Your task to perform on an android device: Search for the new Nike Air Jordan 33 on Nike.com Image 0: 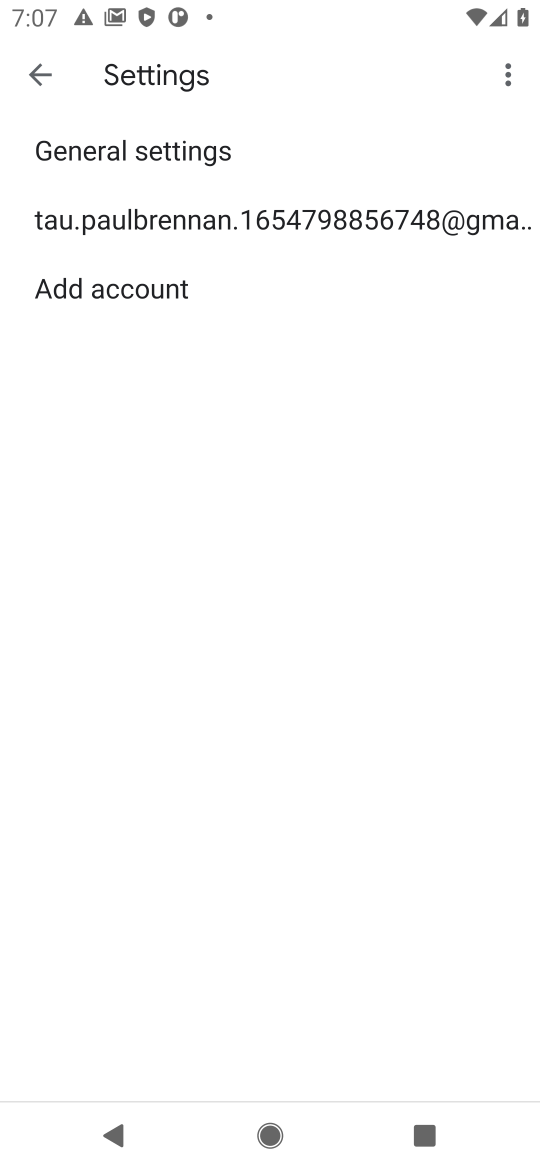
Step 0: press home button
Your task to perform on an android device: Search for the new Nike Air Jordan 33 on Nike.com Image 1: 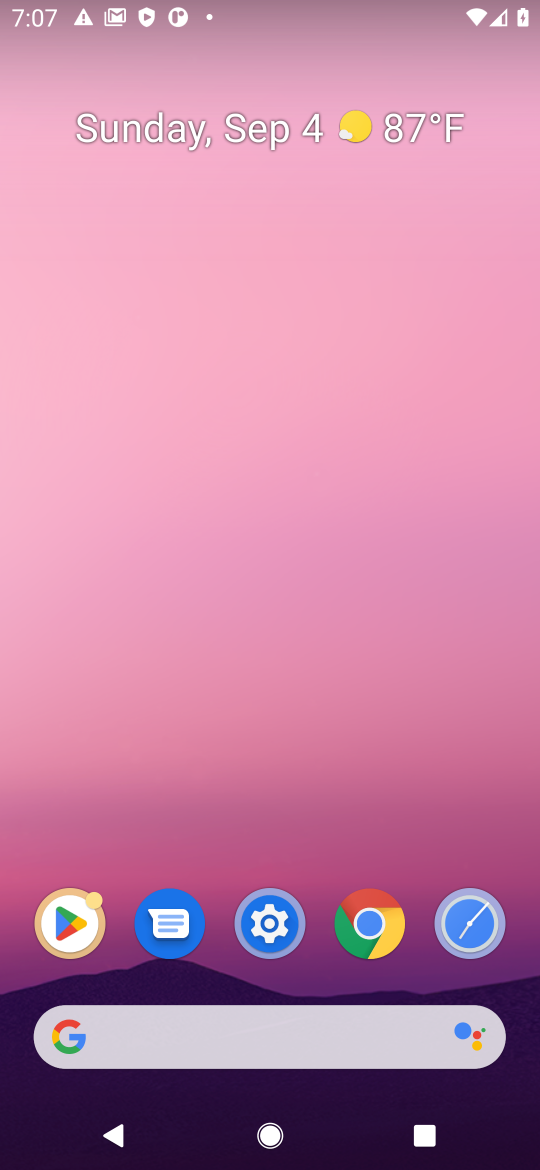
Step 1: click (332, 1051)
Your task to perform on an android device: Search for the new Nike Air Jordan 33 on Nike.com Image 2: 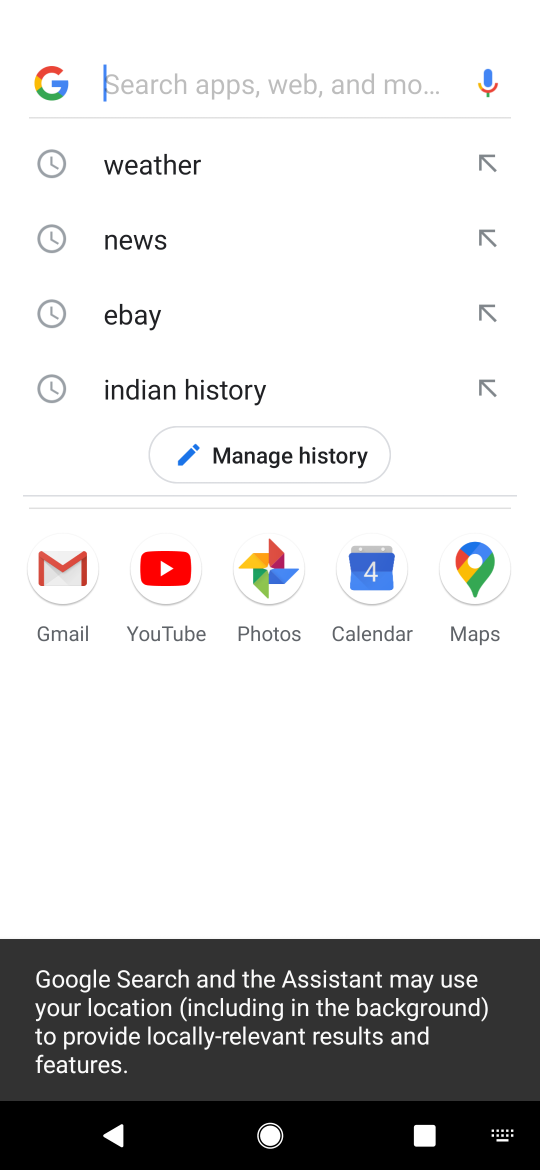
Step 2: click (284, 1027)
Your task to perform on an android device: Search for the new Nike Air Jordan 33 on Nike.com Image 3: 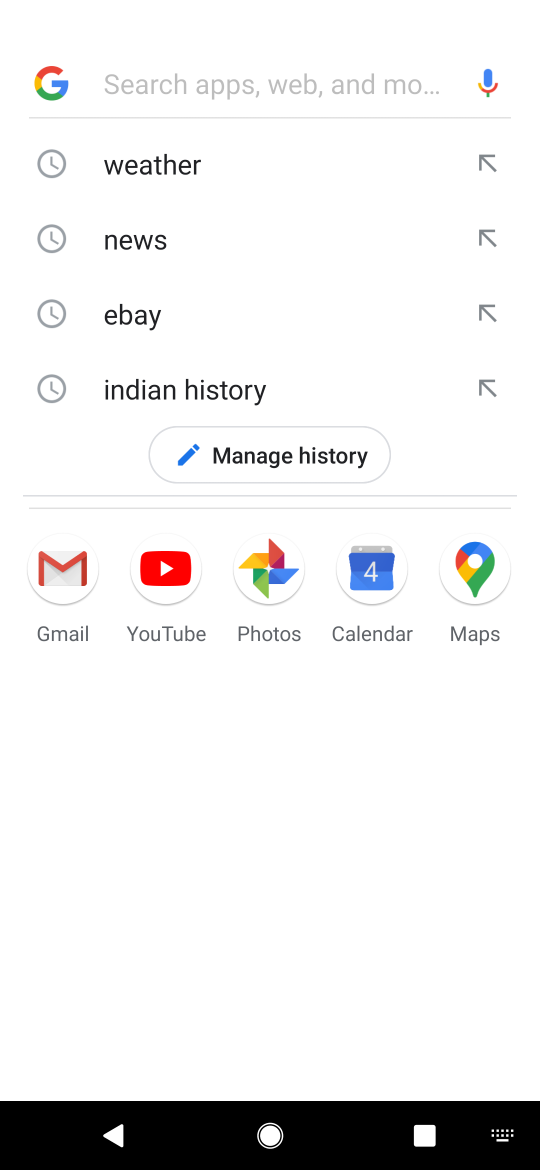
Step 3: type "nike.com"
Your task to perform on an android device: Search for the new Nike Air Jordan 33 on Nike.com Image 4: 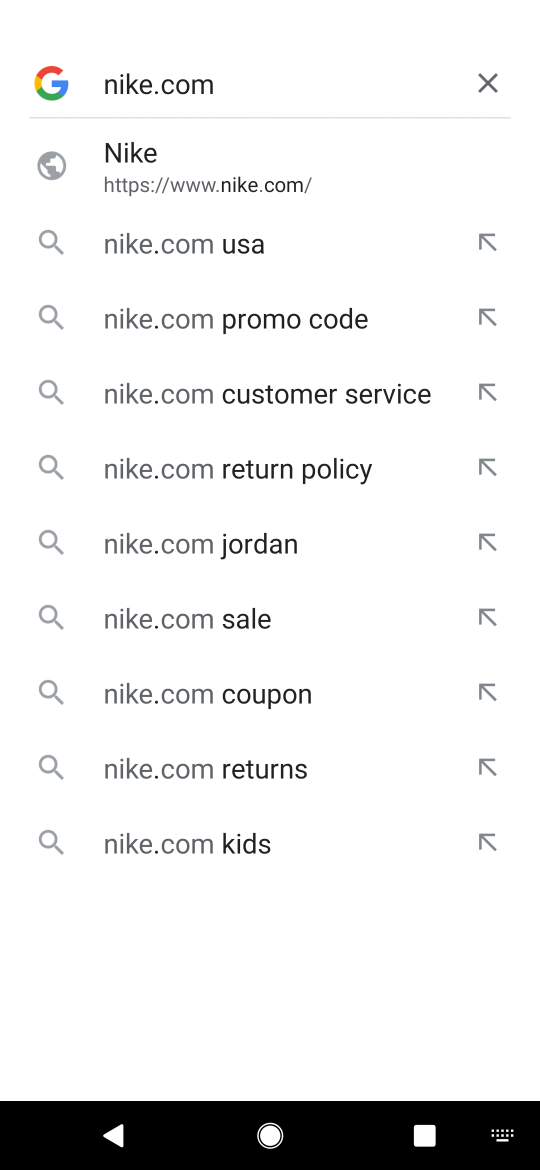
Step 4: press enter
Your task to perform on an android device: Search for the new Nike Air Jordan 33 on Nike.com Image 5: 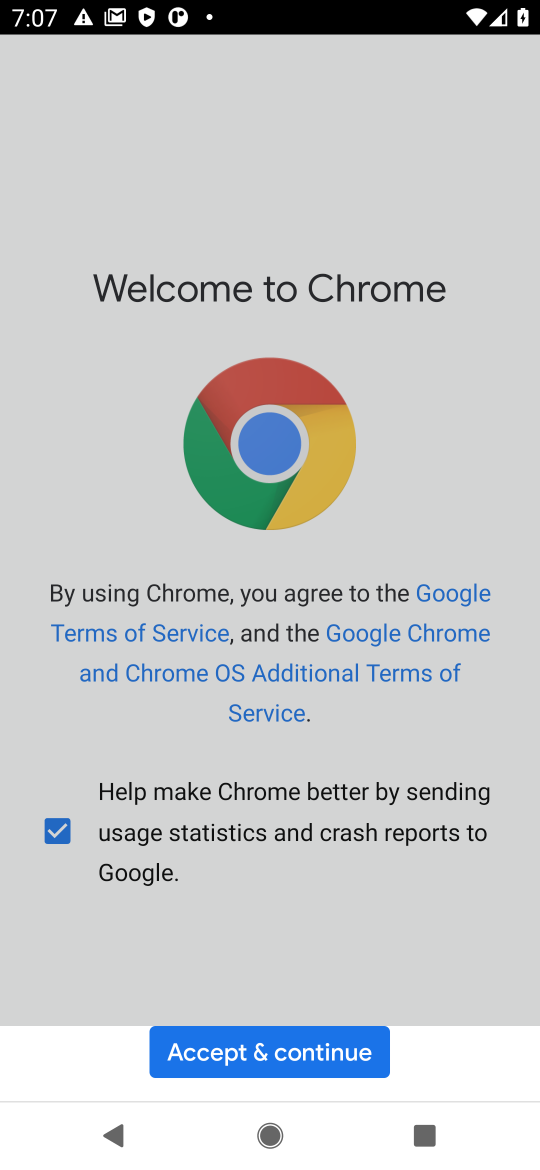
Step 5: click (293, 1047)
Your task to perform on an android device: Search for the new Nike Air Jordan 33 on Nike.com Image 6: 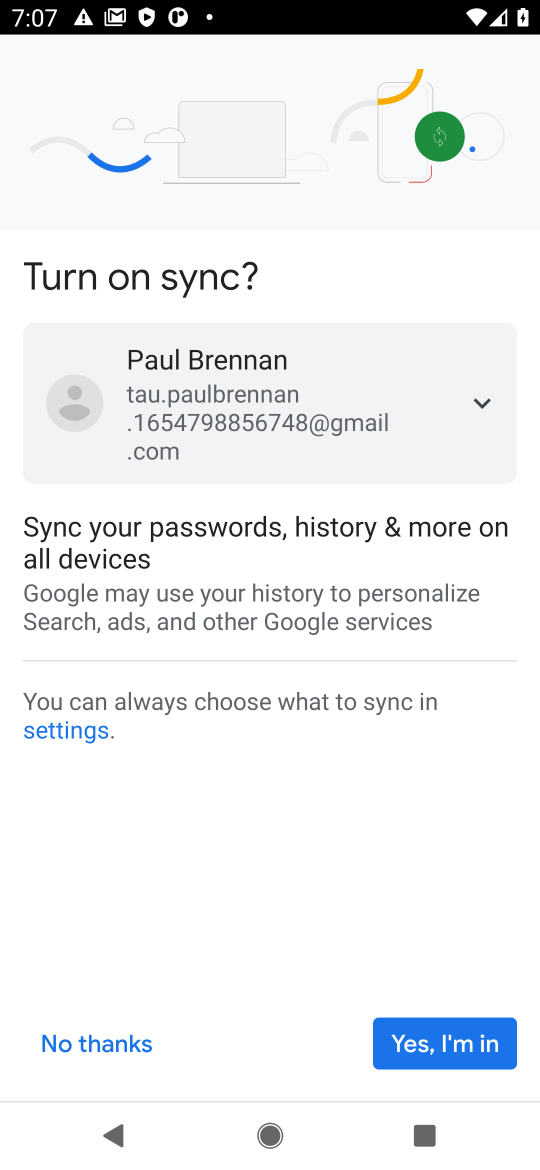
Step 6: click (467, 1053)
Your task to perform on an android device: Search for the new Nike Air Jordan 33 on Nike.com Image 7: 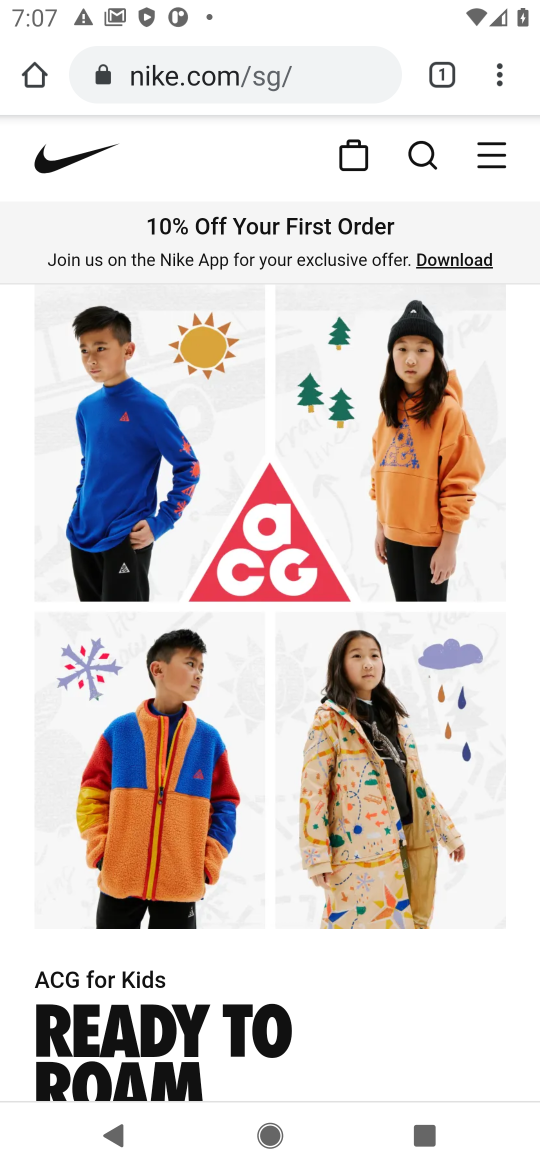
Step 7: click (422, 156)
Your task to perform on an android device: Search for the new Nike Air Jordan 33 on Nike.com Image 8: 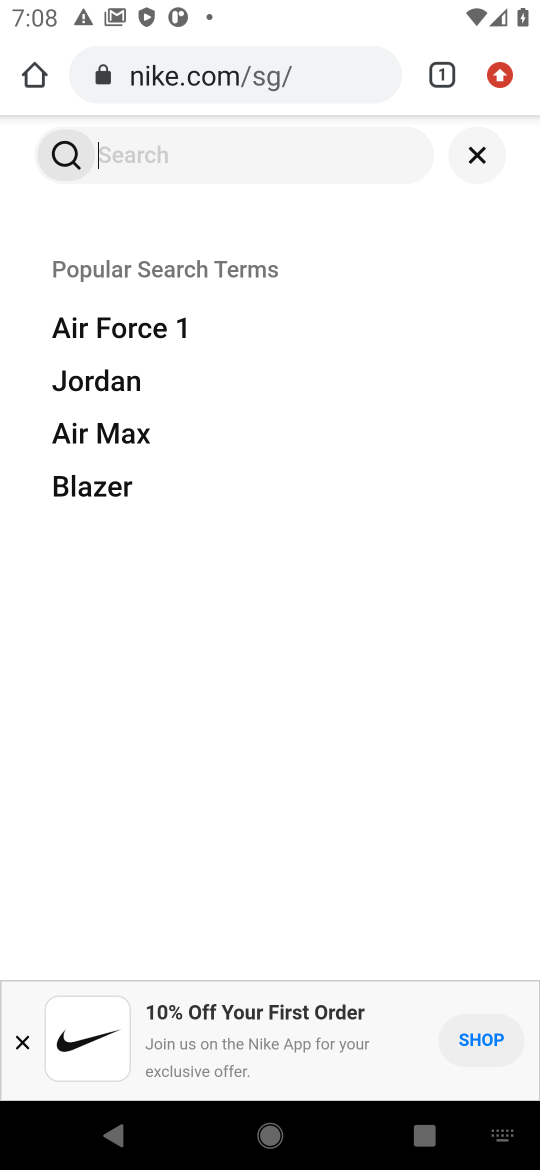
Step 8: press enter
Your task to perform on an android device: Search for the new Nike Air Jordan 33 on Nike.com Image 9: 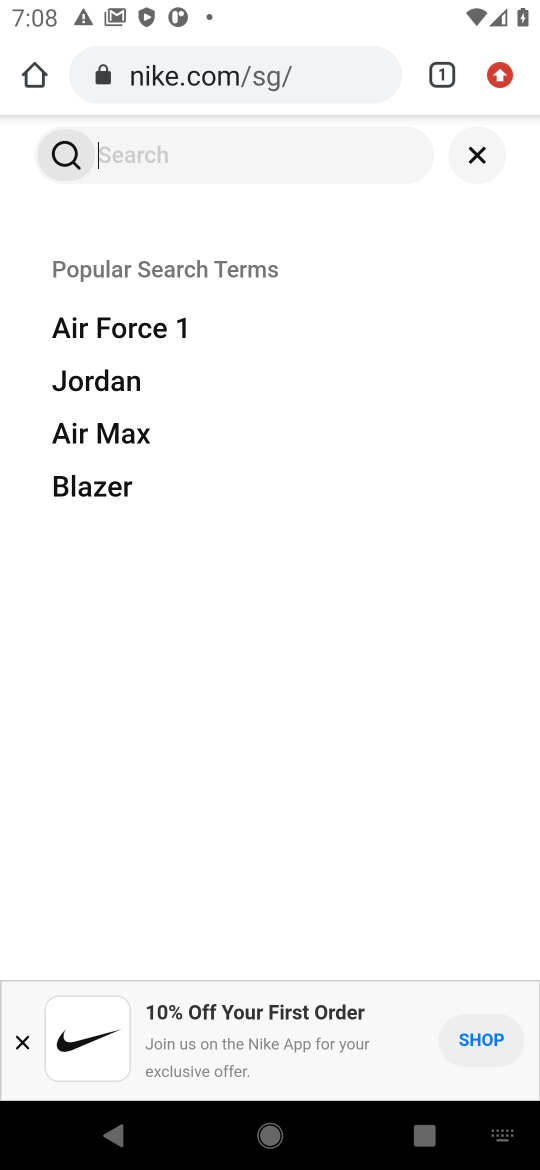
Step 9: type "Nike Air Jordan 33 "
Your task to perform on an android device: Search for the new Nike Air Jordan 33 on Nike.com Image 10: 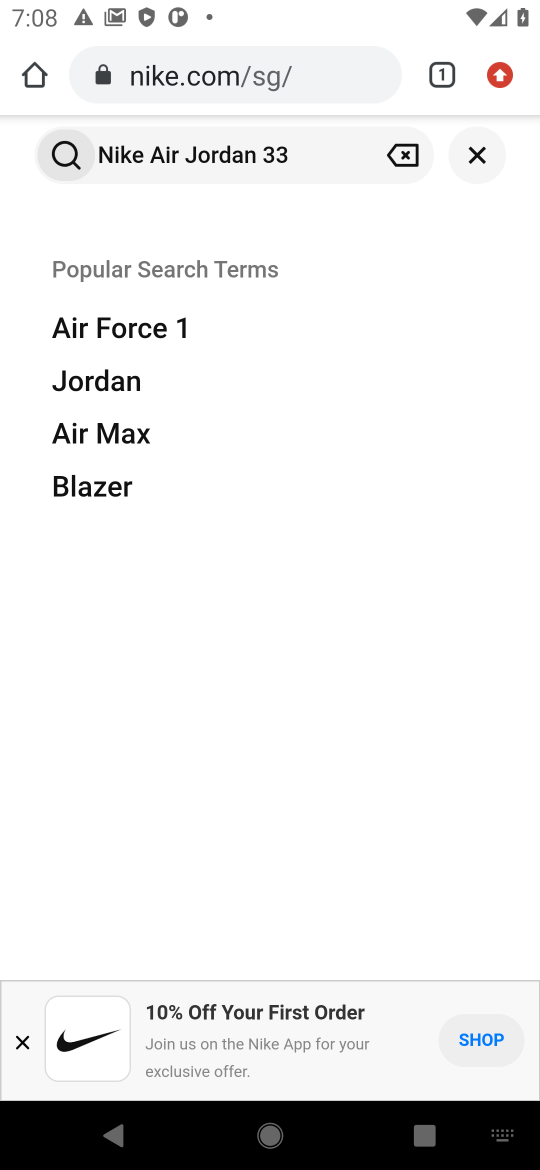
Step 10: click (56, 147)
Your task to perform on an android device: Search for the new Nike Air Jordan 33 on Nike.com Image 11: 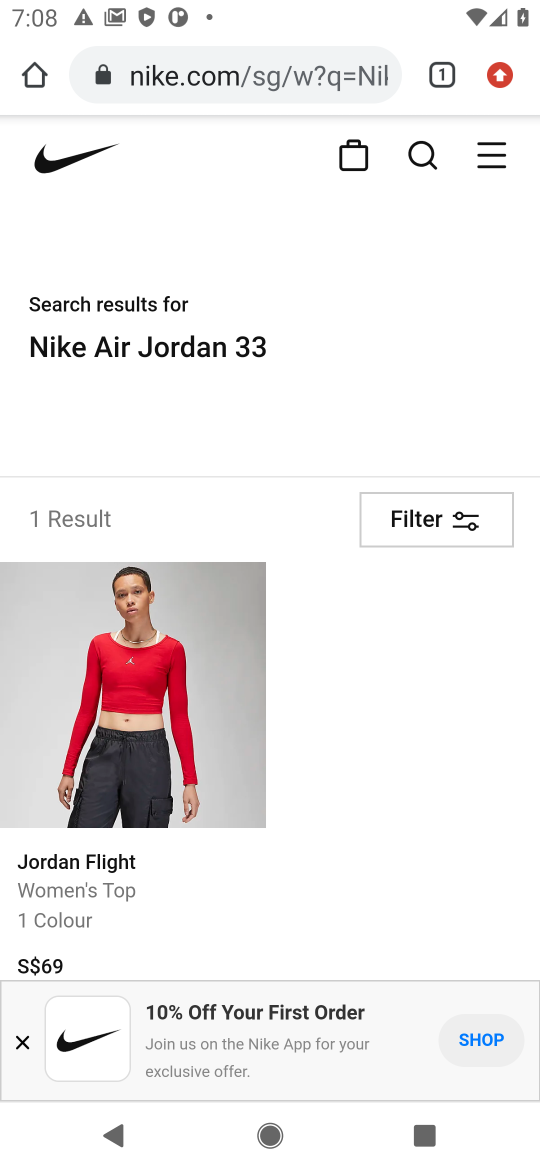
Step 11: task complete